Your task to perform on an android device: Open Google Chrome and open the bookmarks view Image 0: 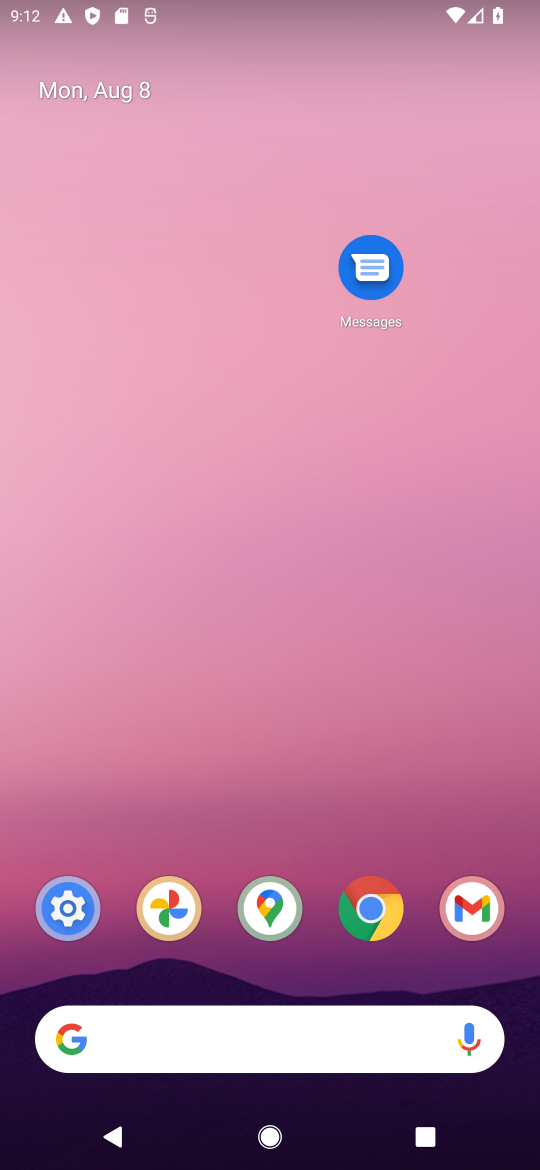
Step 0: click (373, 915)
Your task to perform on an android device: Open Google Chrome and open the bookmarks view Image 1: 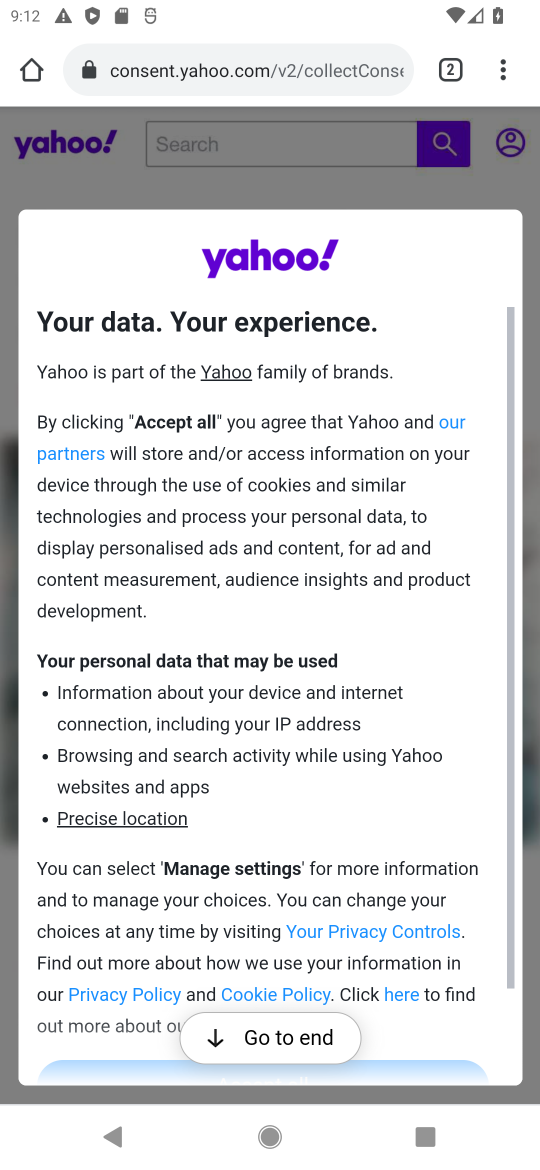
Step 1: click (525, 65)
Your task to perform on an android device: Open Google Chrome and open the bookmarks view Image 2: 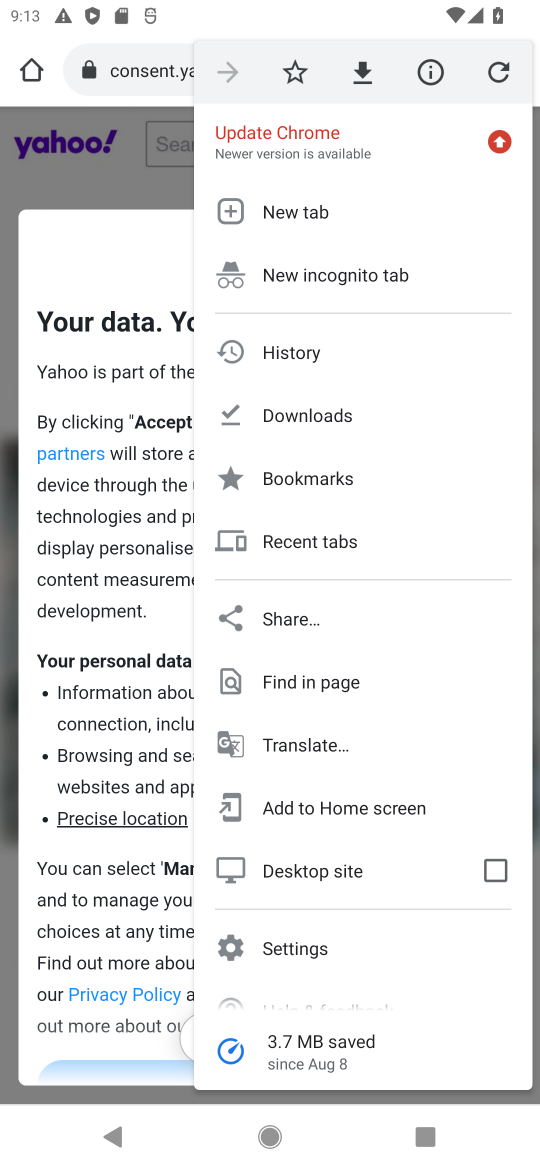
Step 2: click (287, 466)
Your task to perform on an android device: Open Google Chrome and open the bookmarks view Image 3: 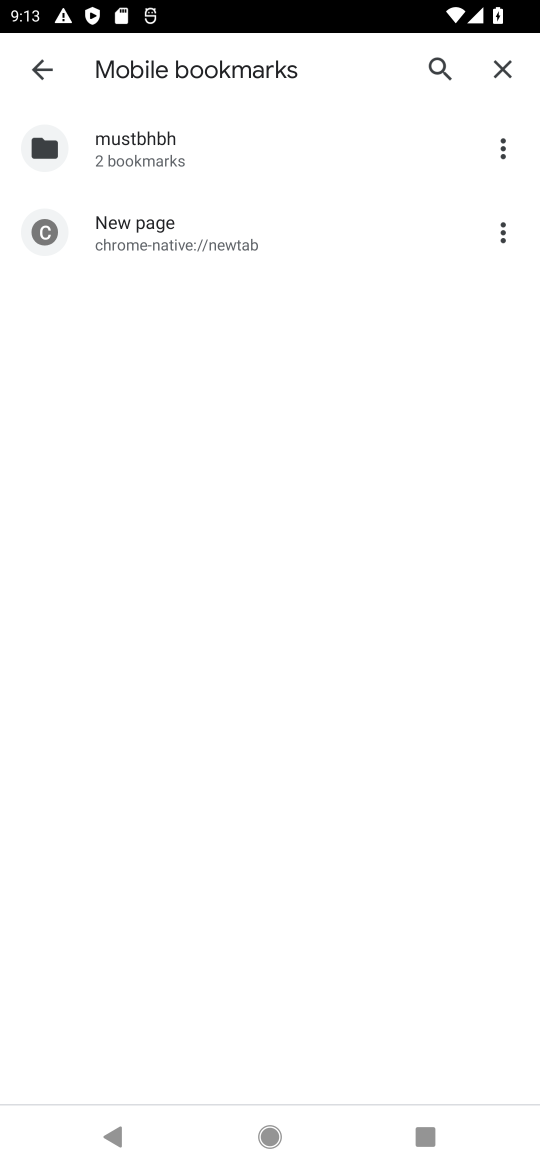
Step 3: task complete